Your task to perform on an android device: Empty the shopping cart on target.com. Search for alienware area 51 on target.com, select the first entry, add it to the cart, then select checkout. Image 0: 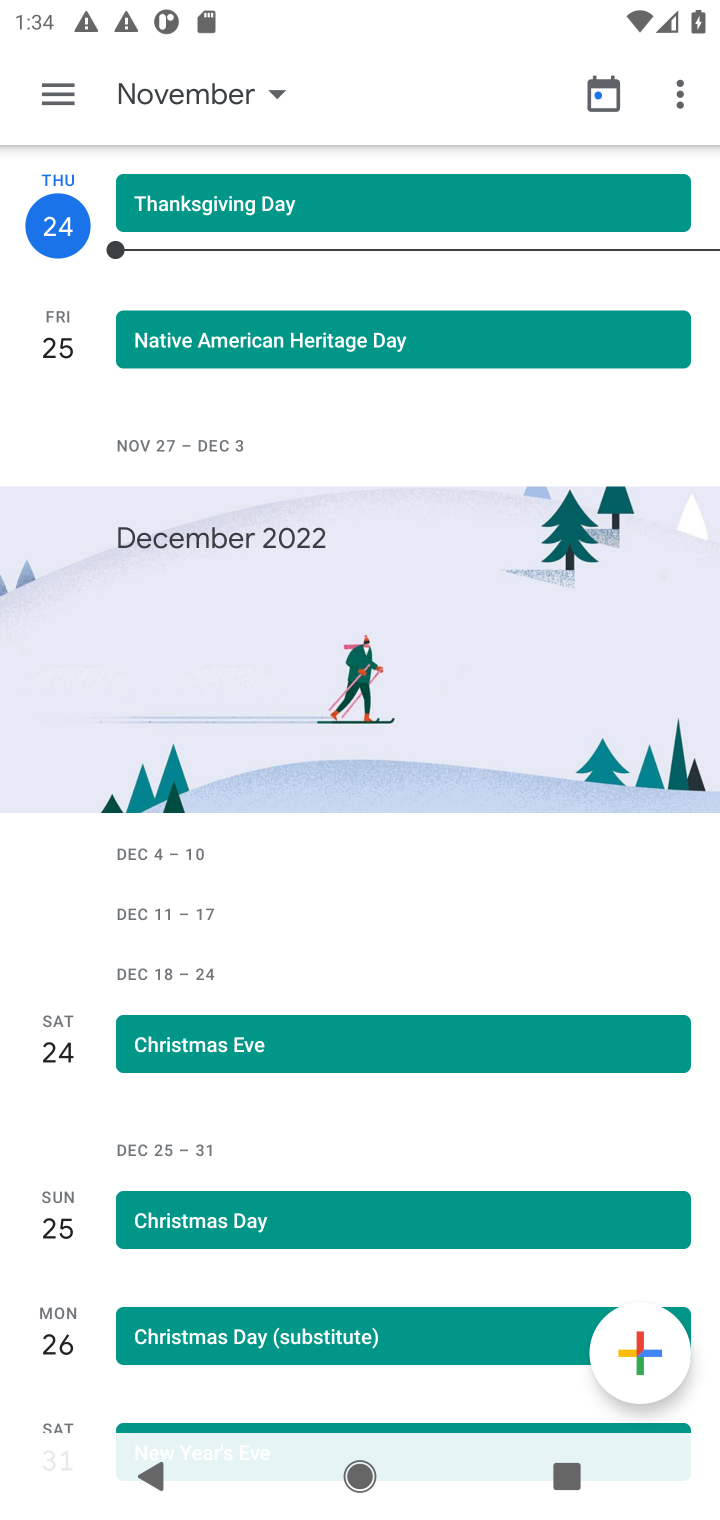
Step 0: press home button
Your task to perform on an android device: Empty the shopping cart on target.com. Search for alienware area 51 on target.com, select the first entry, add it to the cart, then select checkout. Image 1: 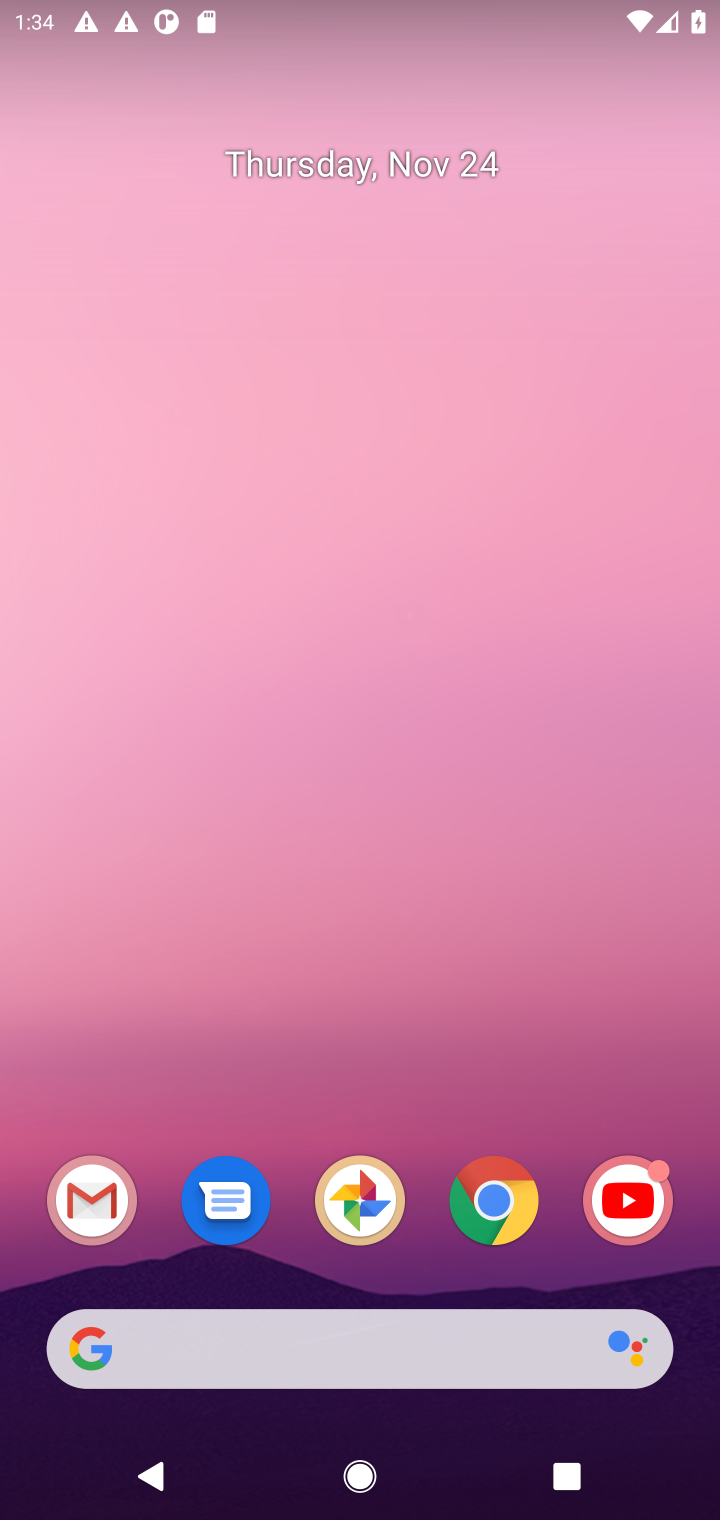
Step 1: click (433, 1388)
Your task to perform on an android device: Empty the shopping cart on target.com. Search for alienware area 51 on target.com, select the first entry, add it to the cart, then select checkout. Image 2: 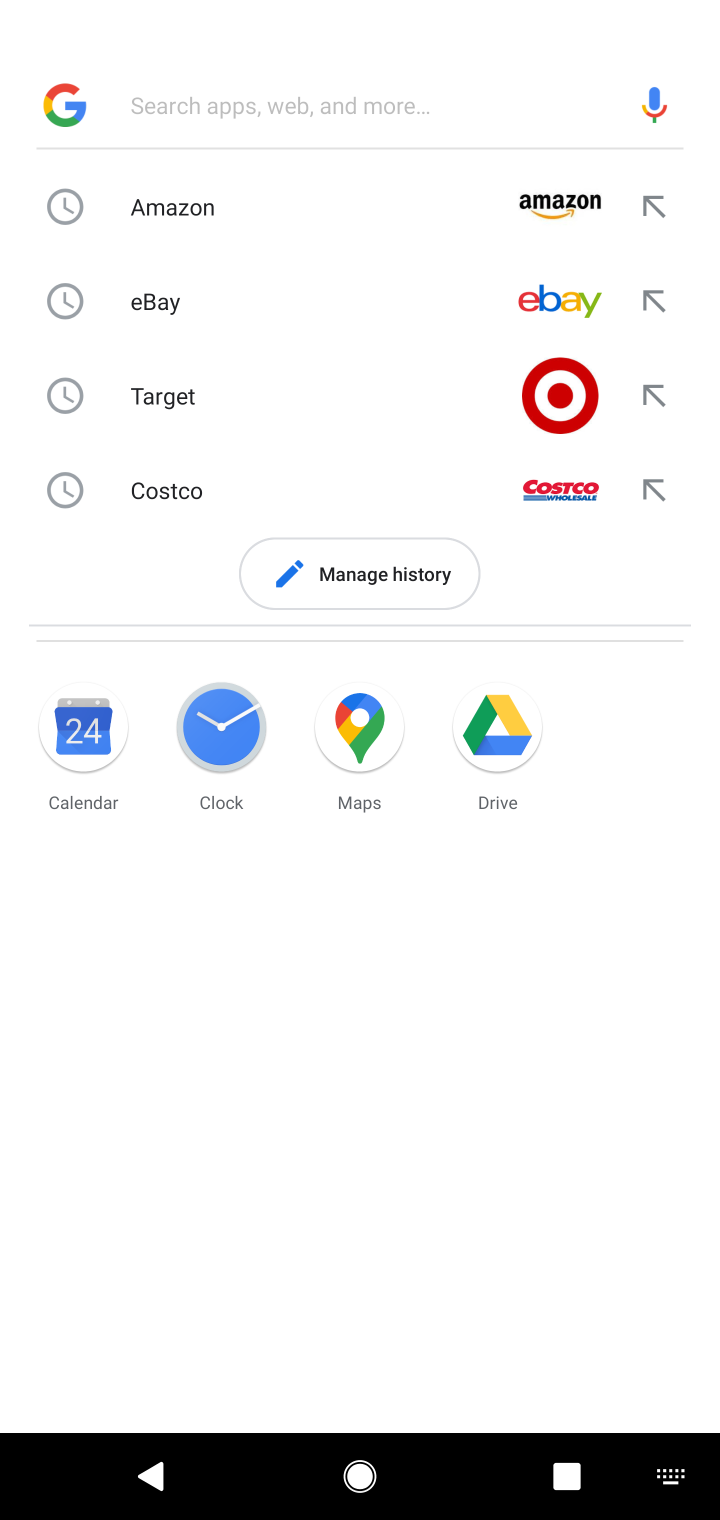
Step 2: type "target"
Your task to perform on an android device: Empty the shopping cart on target.com. Search for alienware area 51 on target.com, select the first entry, add it to the cart, then select checkout. Image 3: 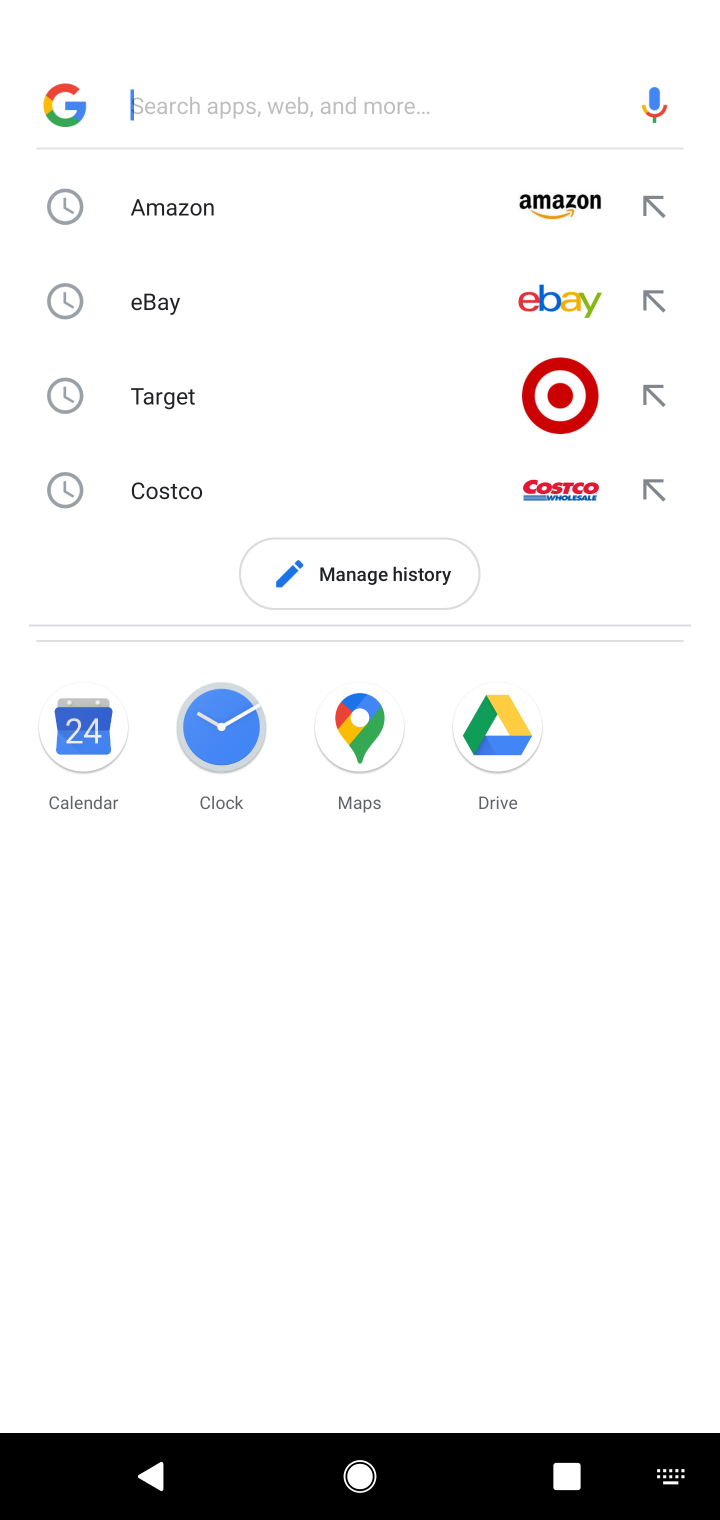
Step 3: click (152, 401)
Your task to perform on an android device: Empty the shopping cart on target.com. Search for alienware area 51 on target.com, select the first entry, add it to the cart, then select checkout. Image 4: 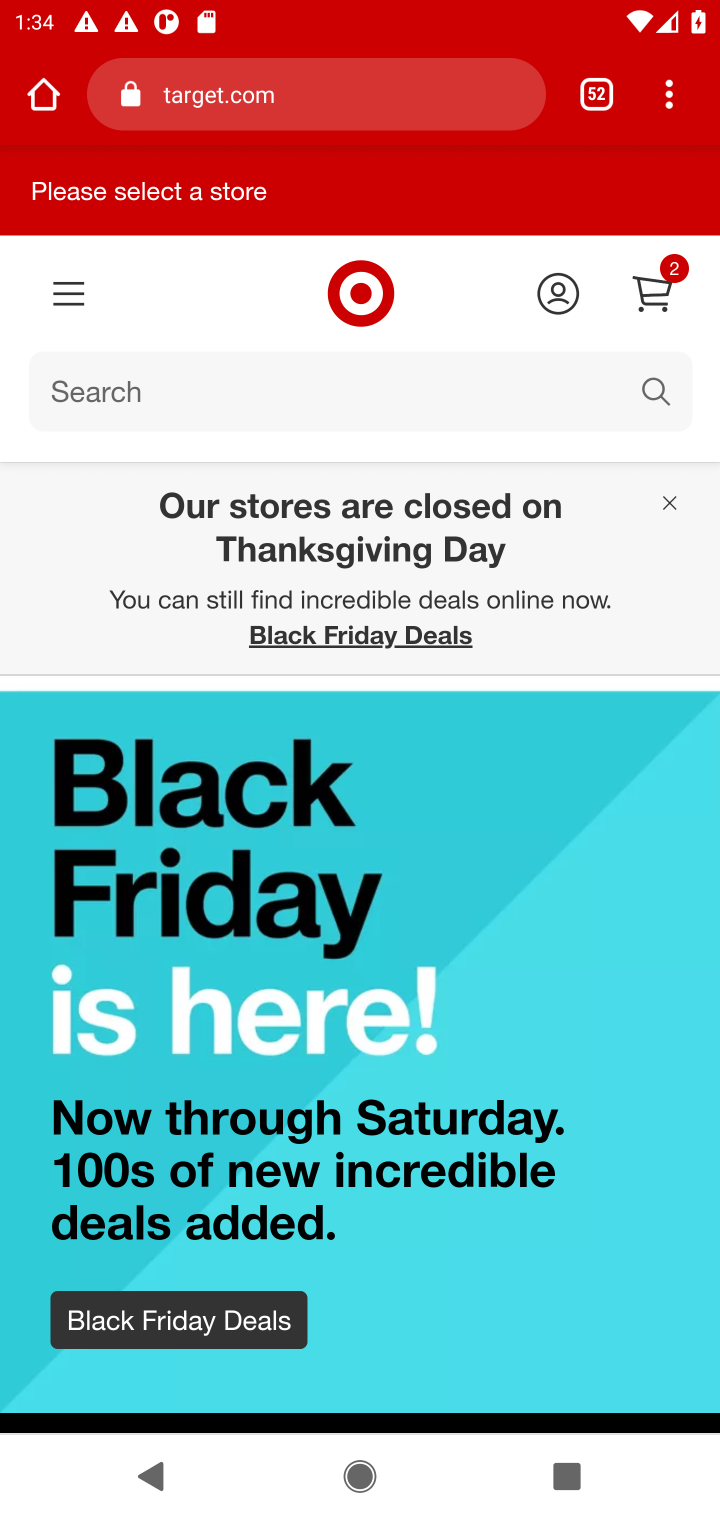
Step 4: click (91, 398)
Your task to perform on an android device: Empty the shopping cart on target.com. Search for alienware area 51 on target.com, select the first entry, add it to the cart, then select checkout. Image 5: 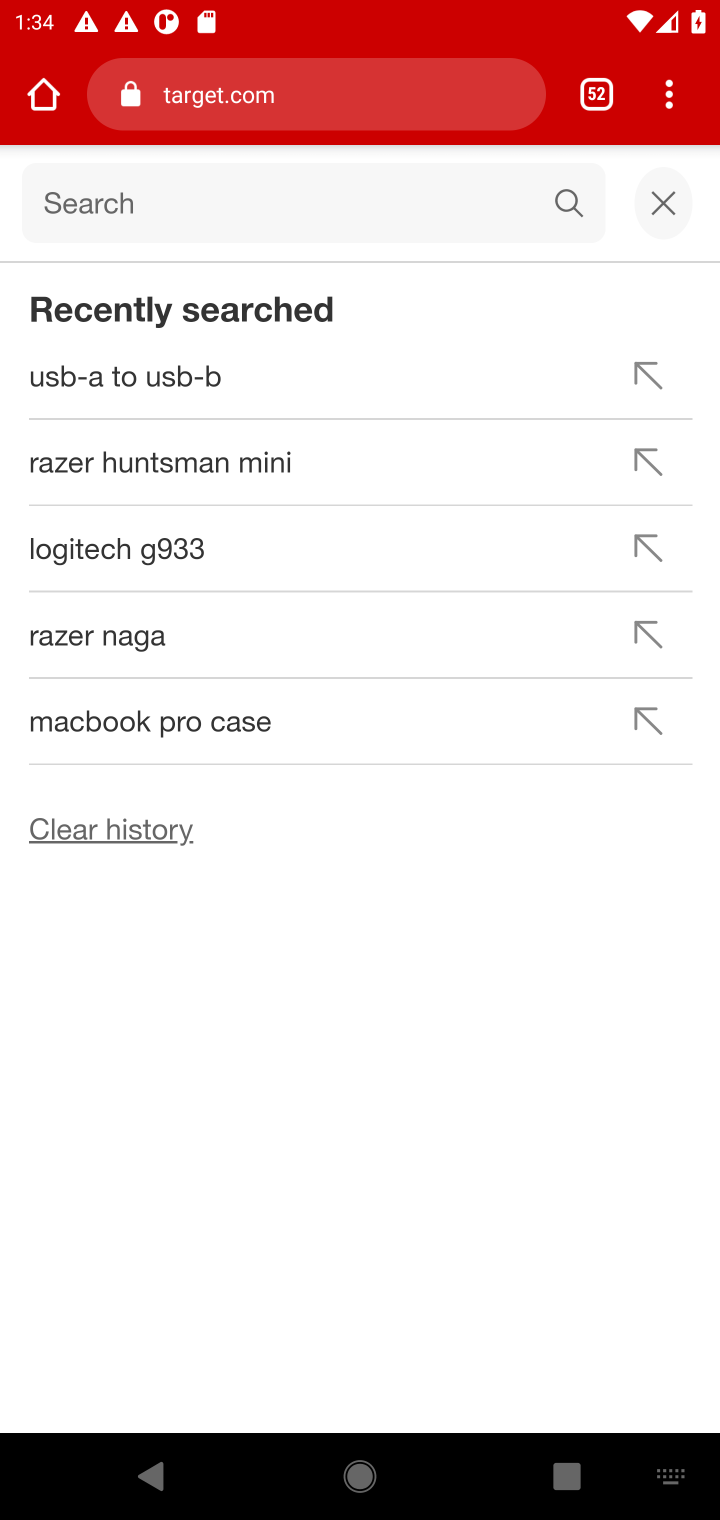
Step 5: type "alienwear area 51"
Your task to perform on an android device: Empty the shopping cart on target.com. Search for alienware area 51 on target.com, select the first entry, add it to the cart, then select checkout. Image 6: 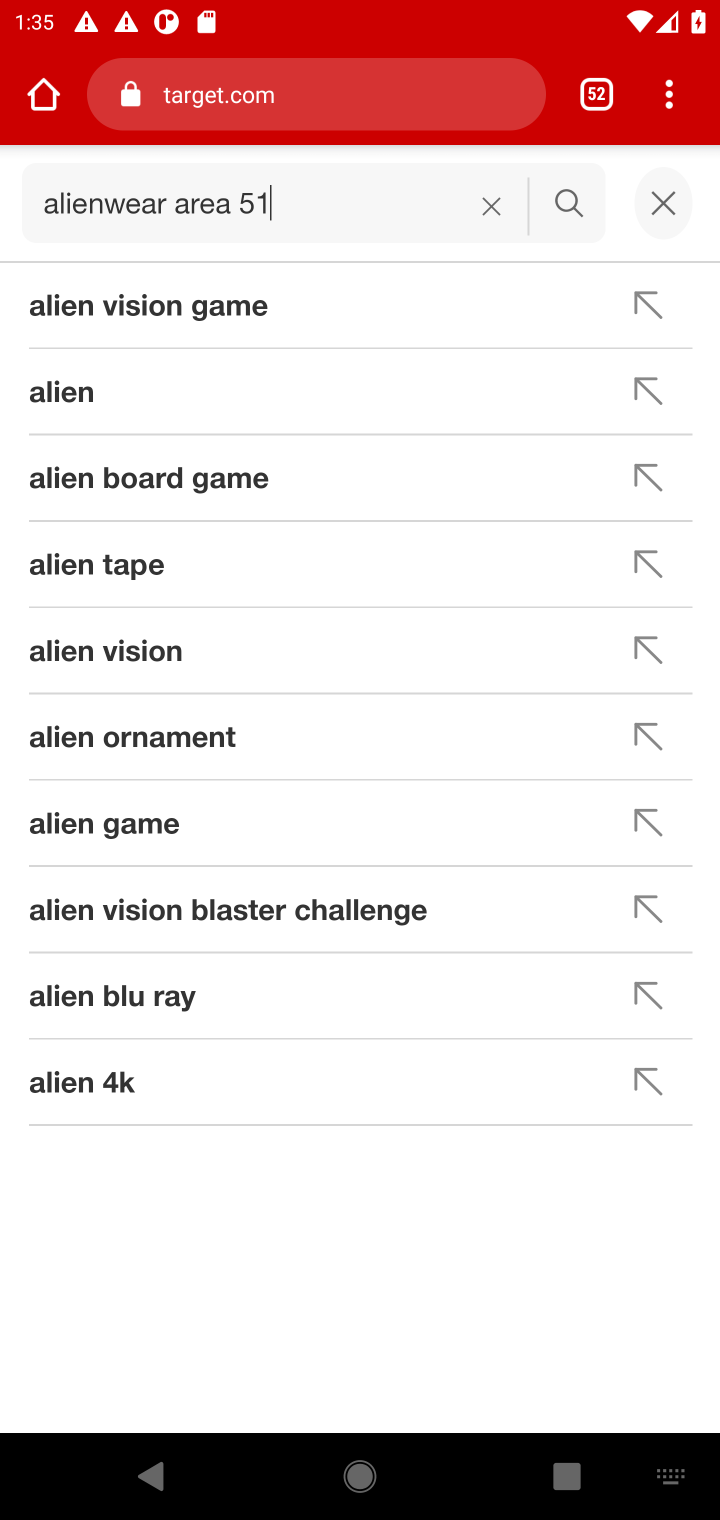
Step 6: click (553, 206)
Your task to perform on an android device: Empty the shopping cart on target.com. Search for alienware area 51 on target.com, select the first entry, add it to the cart, then select checkout. Image 7: 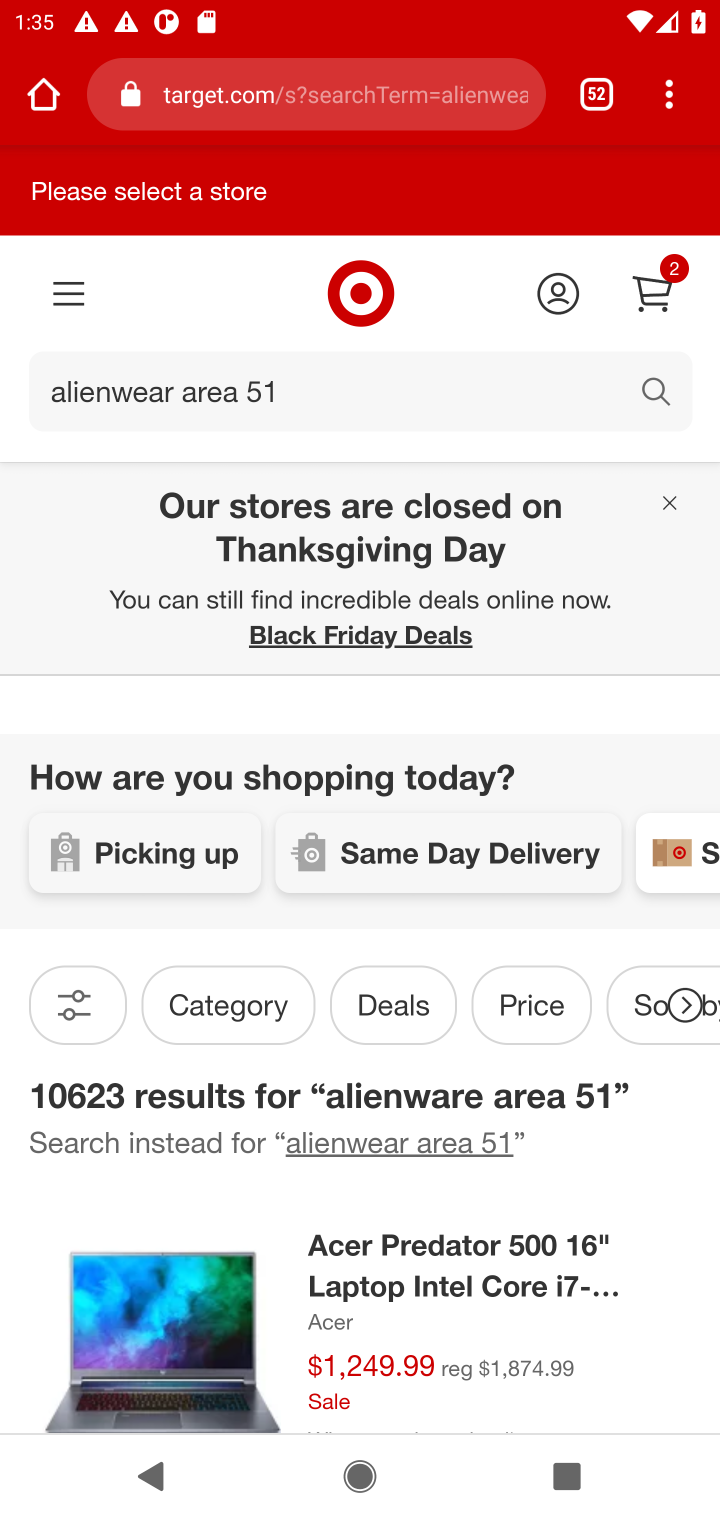
Step 7: click (407, 1295)
Your task to perform on an android device: Empty the shopping cart on target.com. Search for alienware area 51 on target.com, select the first entry, add it to the cart, then select checkout. Image 8: 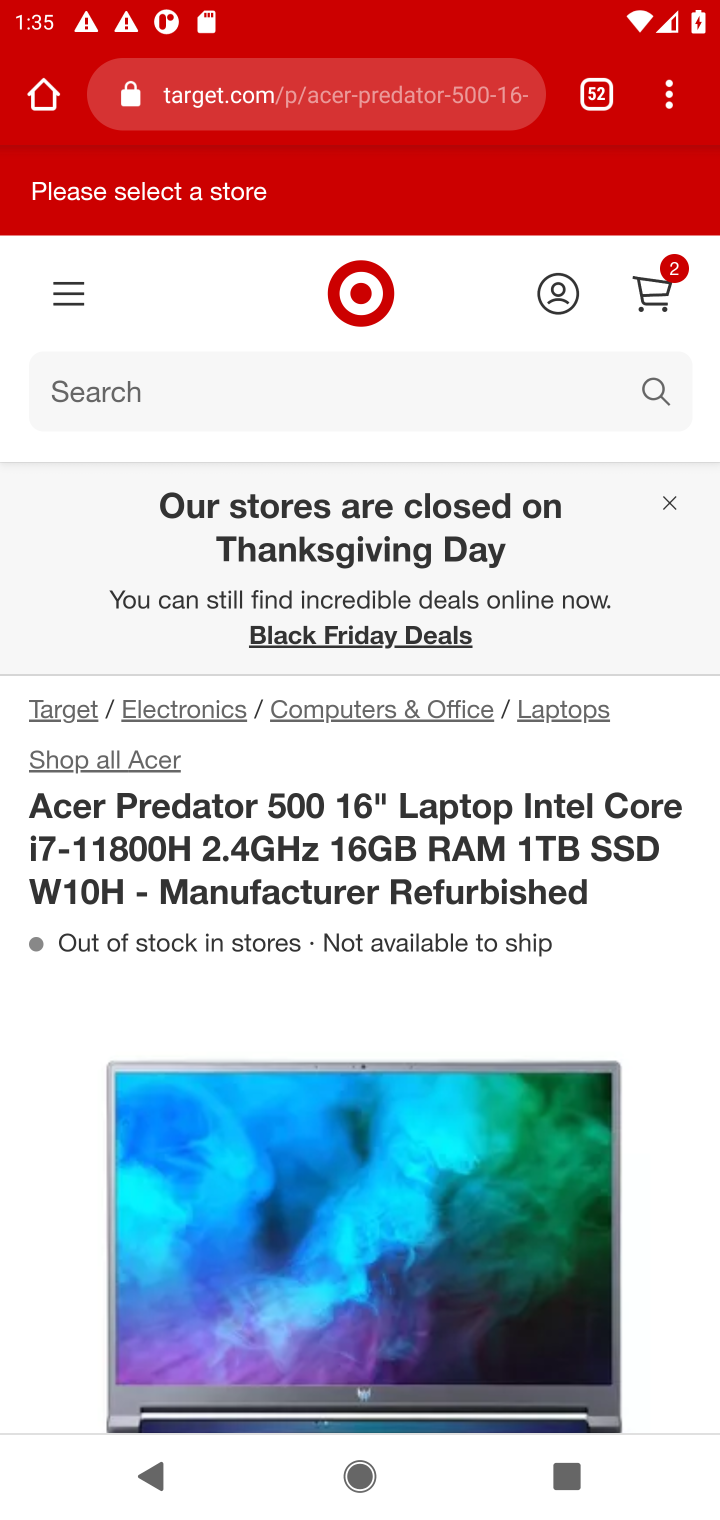
Step 8: task complete